Your task to perform on an android device: Is it going to rain tomorrow? Image 0: 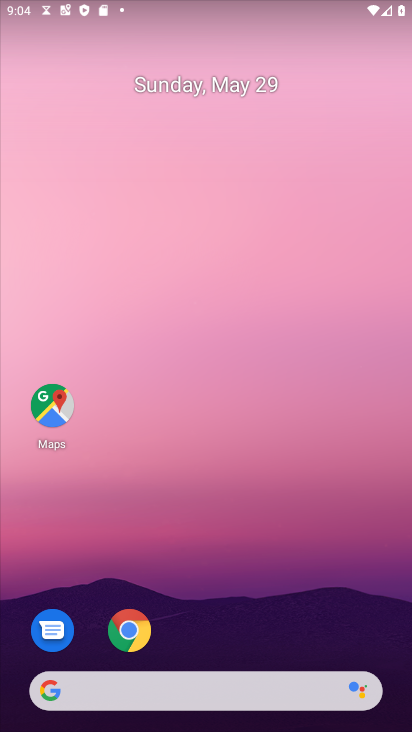
Step 0: click (162, 702)
Your task to perform on an android device: Is it going to rain tomorrow? Image 1: 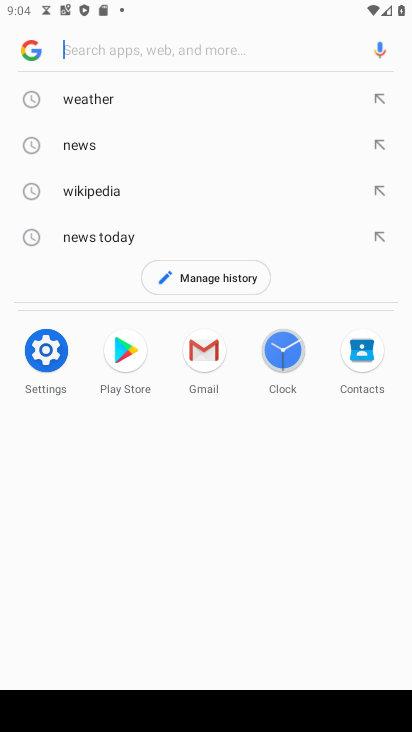
Step 1: click (144, 94)
Your task to perform on an android device: Is it going to rain tomorrow? Image 2: 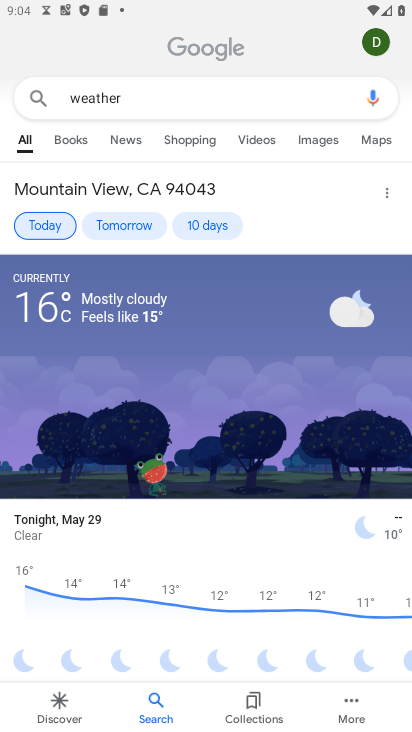
Step 2: click (111, 218)
Your task to perform on an android device: Is it going to rain tomorrow? Image 3: 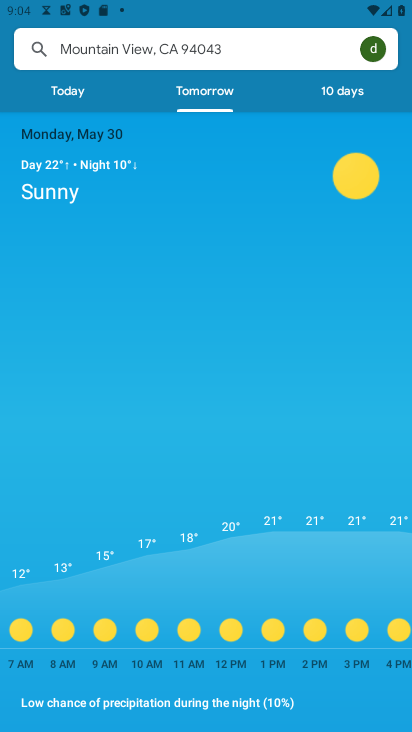
Step 3: task complete